Your task to perform on an android device: Go to Yahoo.com Image 0: 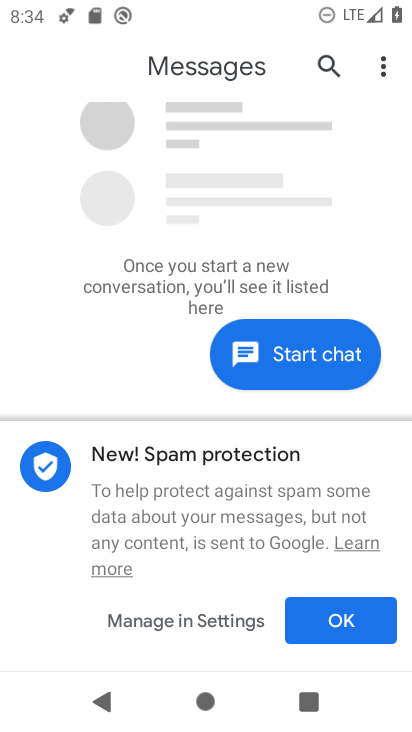
Step 0: press home button
Your task to perform on an android device: Go to Yahoo.com Image 1: 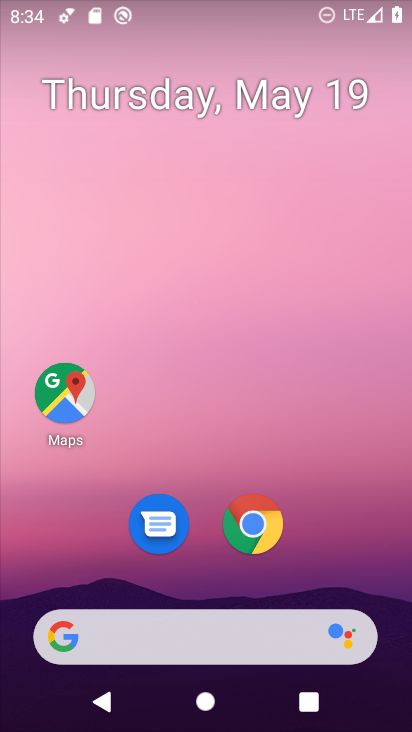
Step 1: click (259, 639)
Your task to perform on an android device: Go to Yahoo.com Image 2: 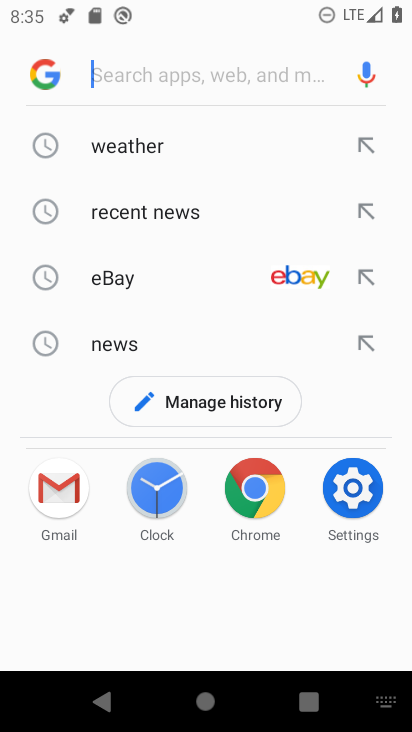
Step 2: type "yahoo.com"
Your task to perform on an android device: Go to Yahoo.com Image 3: 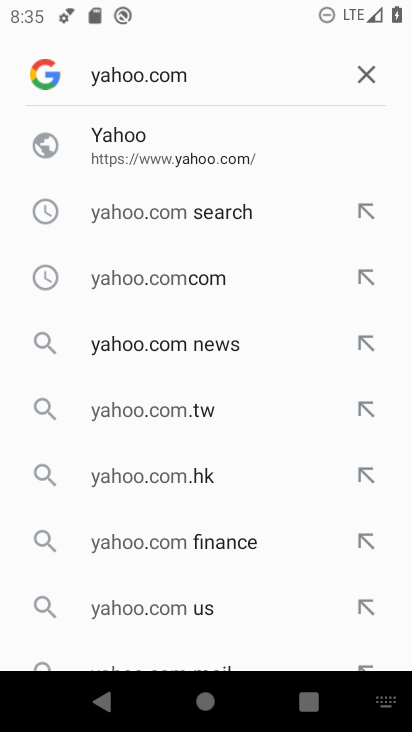
Step 3: click (105, 140)
Your task to perform on an android device: Go to Yahoo.com Image 4: 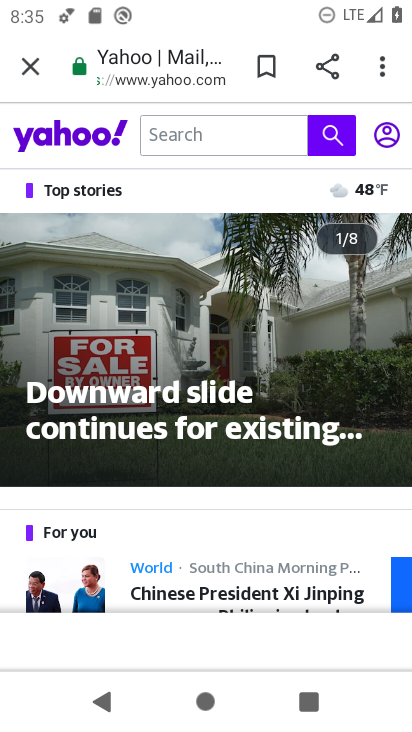
Step 4: task complete